Your task to perform on an android device: turn notification dots on Image 0: 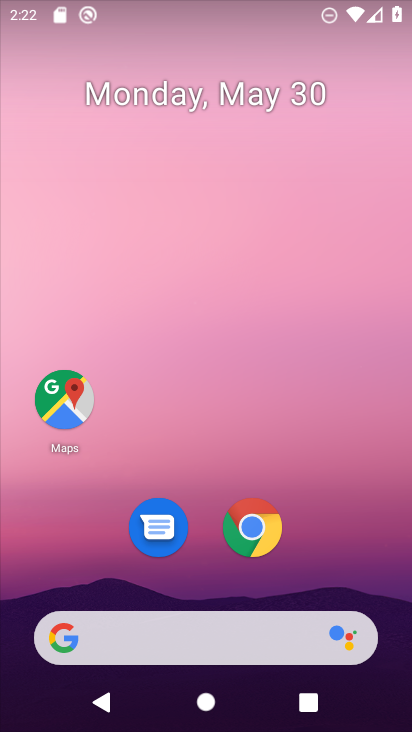
Step 0: drag from (254, 621) to (193, 322)
Your task to perform on an android device: turn notification dots on Image 1: 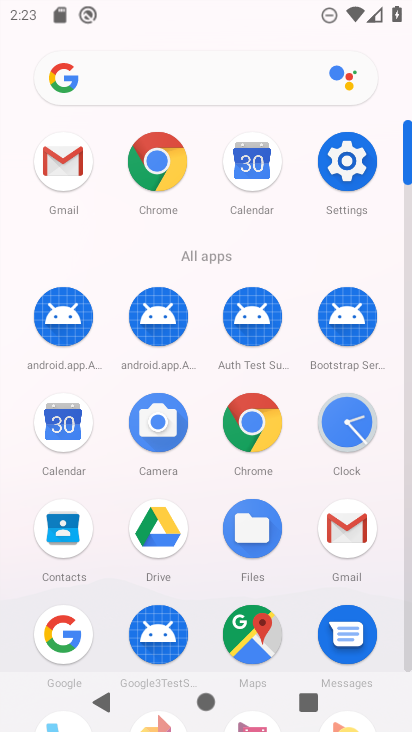
Step 1: click (346, 156)
Your task to perform on an android device: turn notification dots on Image 2: 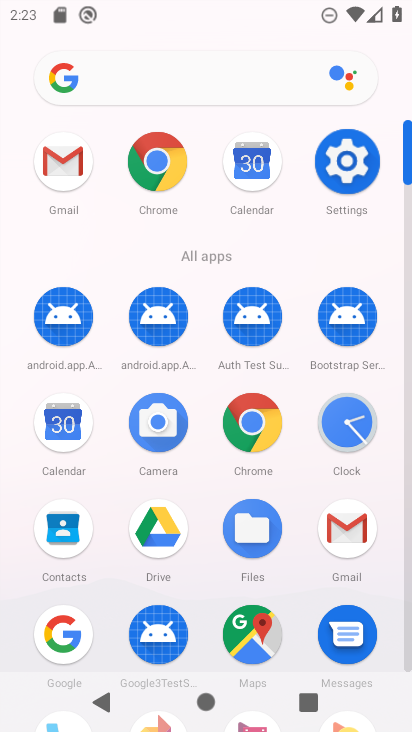
Step 2: click (347, 160)
Your task to perform on an android device: turn notification dots on Image 3: 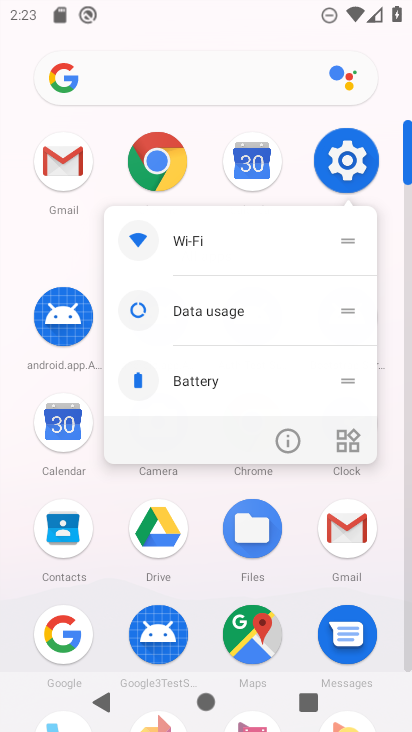
Step 3: click (347, 160)
Your task to perform on an android device: turn notification dots on Image 4: 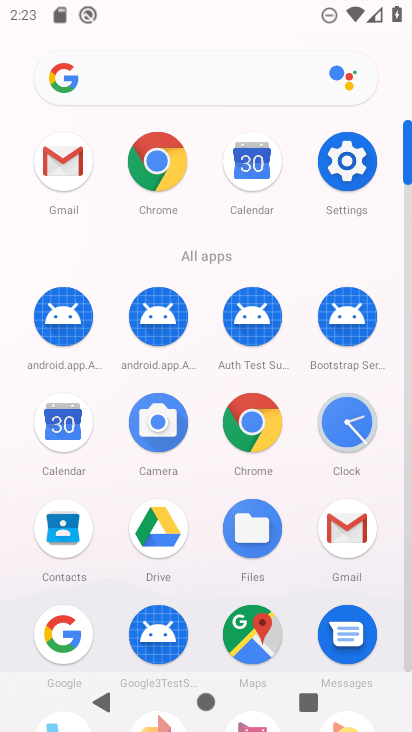
Step 4: click (347, 160)
Your task to perform on an android device: turn notification dots on Image 5: 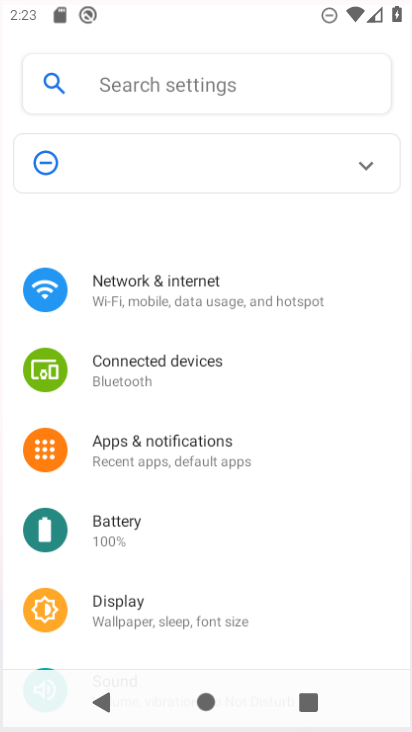
Step 5: click (351, 163)
Your task to perform on an android device: turn notification dots on Image 6: 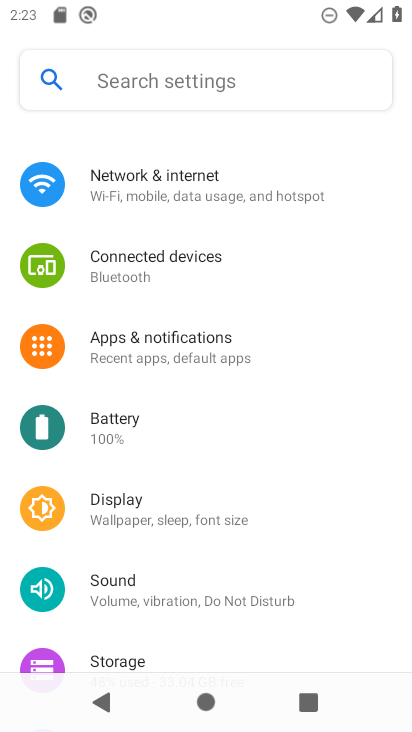
Step 6: click (351, 163)
Your task to perform on an android device: turn notification dots on Image 7: 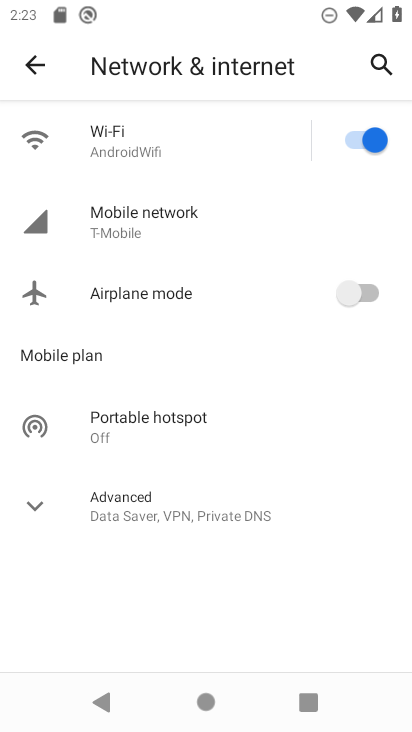
Step 7: click (34, 58)
Your task to perform on an android device: turn notification dots on Image 8: 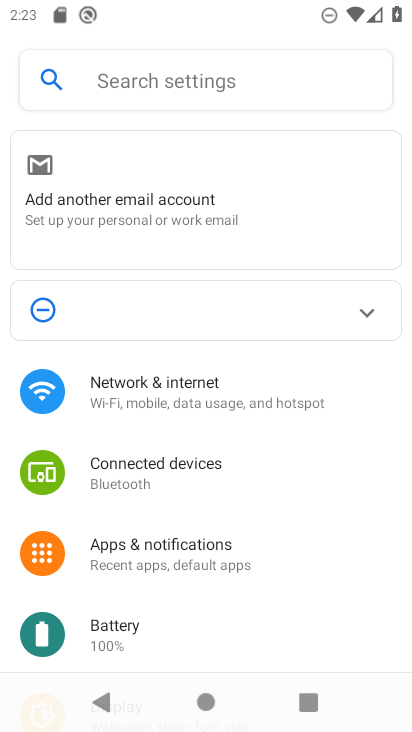
Step 8: click (198, 547)
Your task to perform on an android device: turn notification dots on Image 9: 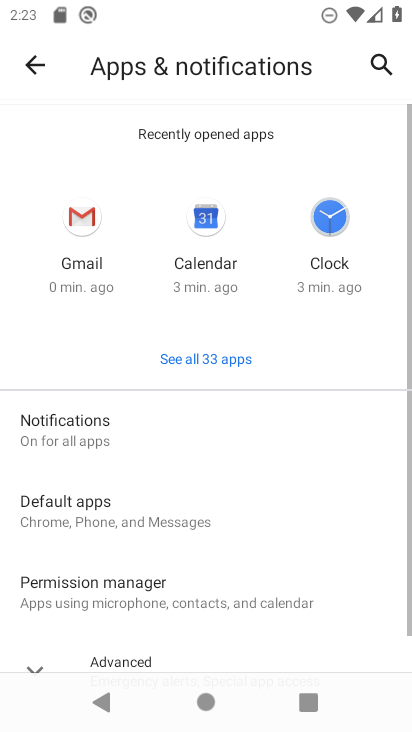
Step 9: drag from (139, 409) to (97, 129)
Your task to perform on an android device: turn notification dots on Image 10: 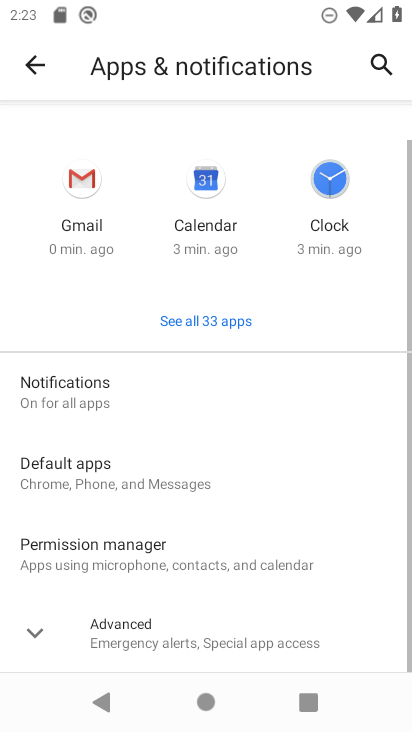
Step 10: drag from (194, 395) to (193, 65)
Your task to perform on an android device: turn notification dots on Image 11: 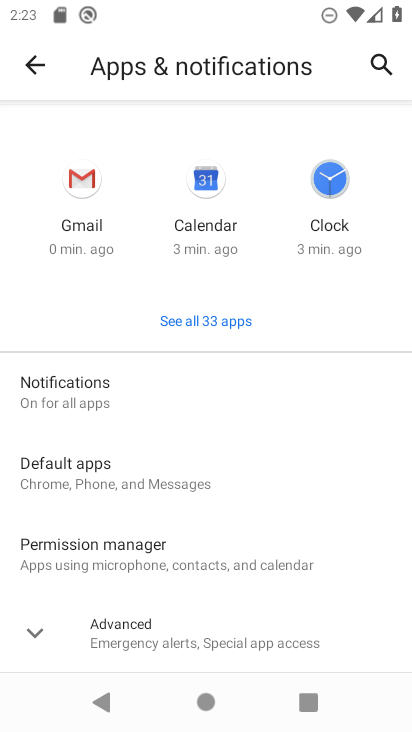
Step 11: click (69, 383)
Your task to perform on an android device: turn notification dots on Image 12: 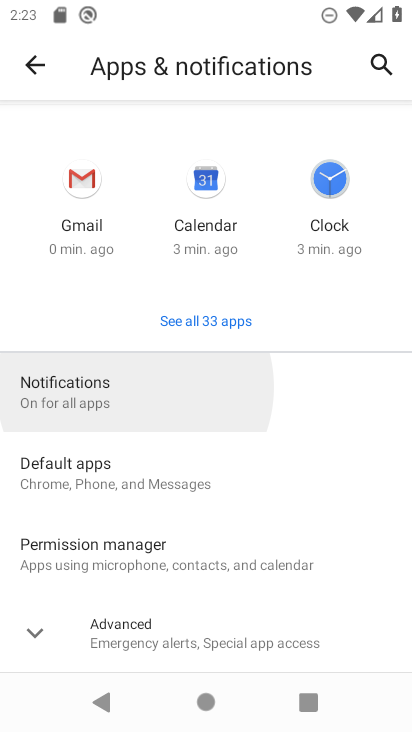
Step 12: click (69, 383)
Your task to perform on an android device: turn notification dots on Image 13: 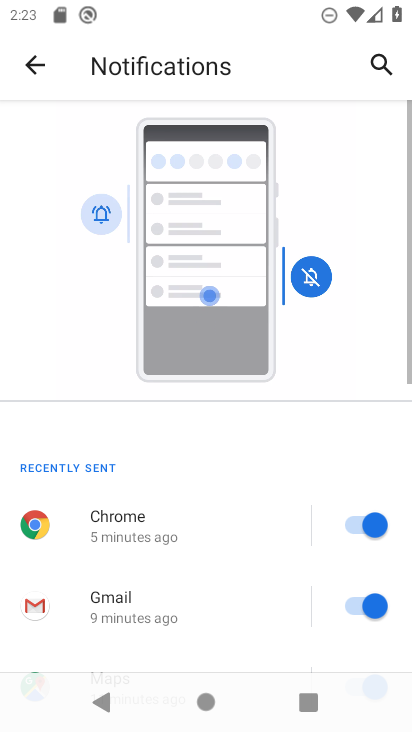
Step 13: drag from (209, 424) to (197, 15)
Your task to perform on an android device: turn notification dots on Image 14: 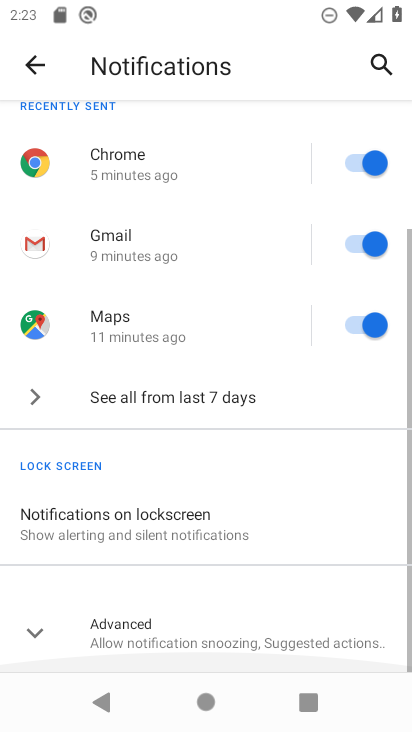
Step 14: drag from (218, 336) to (201, 151)
Your task to perform on an android device: turn notification dots on Image 15: 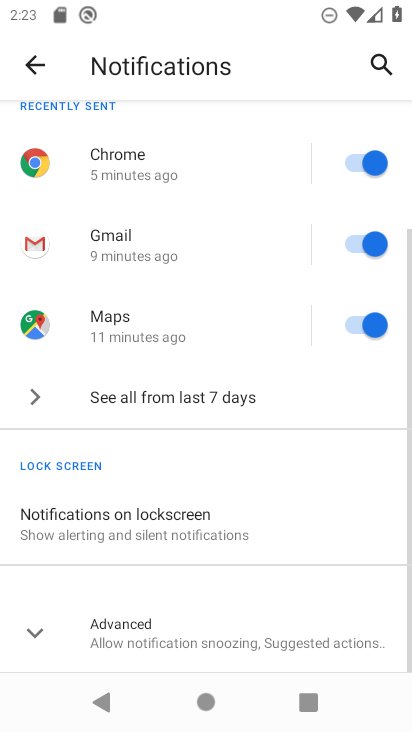
Step 15: drag from (229, 272) to (239, 18)
Your task to perform on an android device: turn notification dots on Image 16: 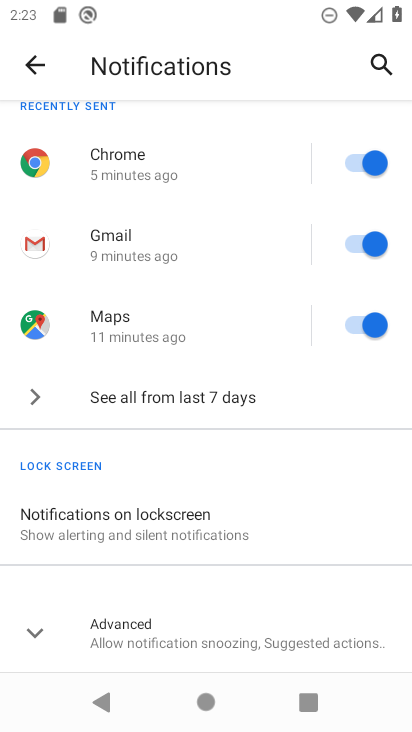
Step 16: click (129, 617)
Your task to perform on an android device: turn notification dots on Image 17: 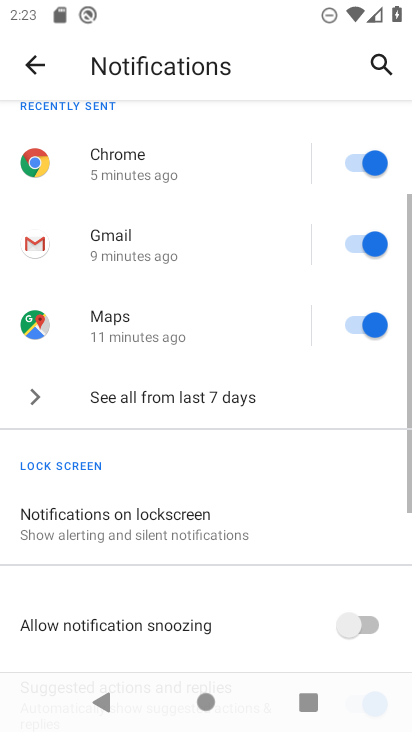
Step 17: task complete